Your task to perform on an android device: open a bookmark in the chrome app Image 0: 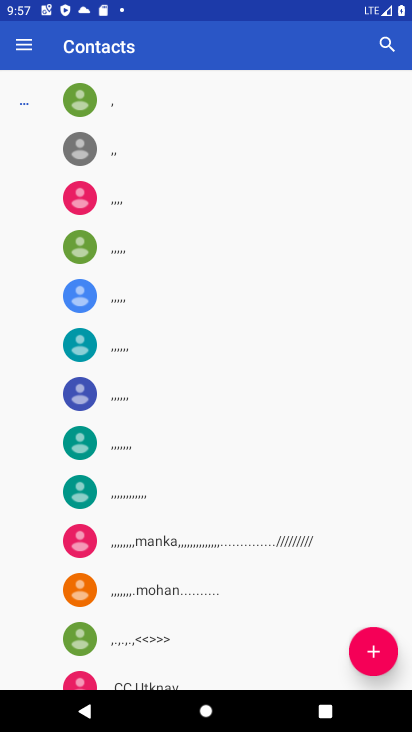
Step 0: press home button
Your task to perform on an android device: open a bookmark in the chrome app Image 1: 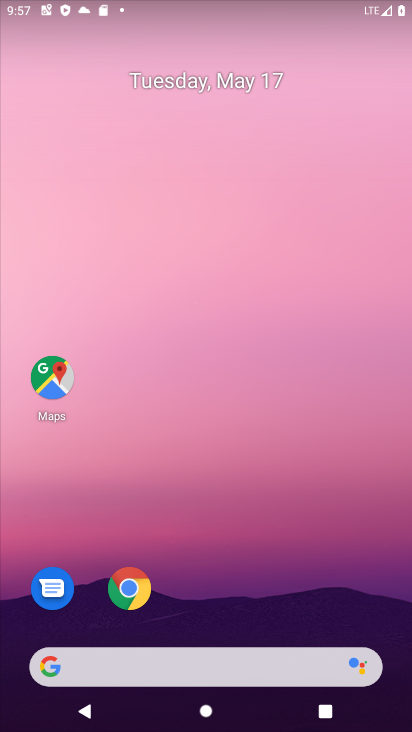
Step 1: drag from (222, 638) to (257, 19)
Your task to perform on an android device: open a bookmark in the chrome app Image 2: 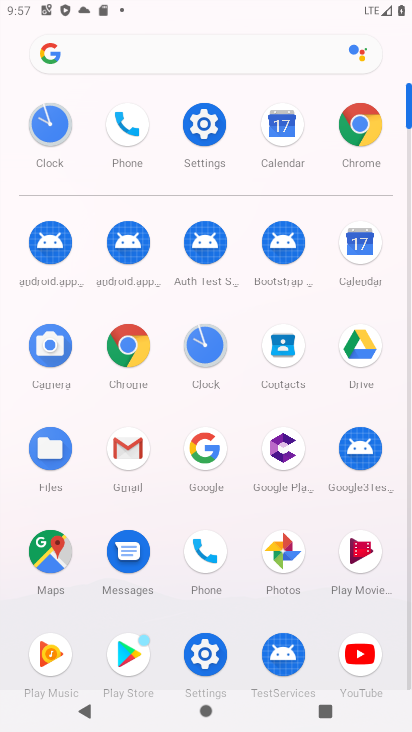
Step 2: click (362, 120)
Your task to perform on an android device: open a bookmark in the chrome app Image 3: 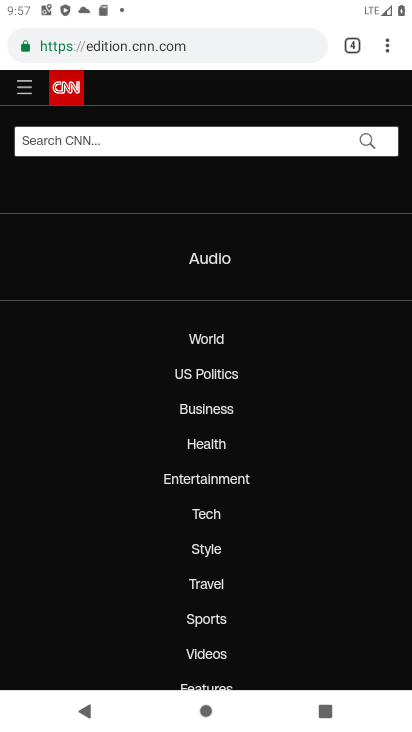
Step 3: click (384, 47)
Your task to perform on an android device: open a bookmark in the chrome app Image 4: 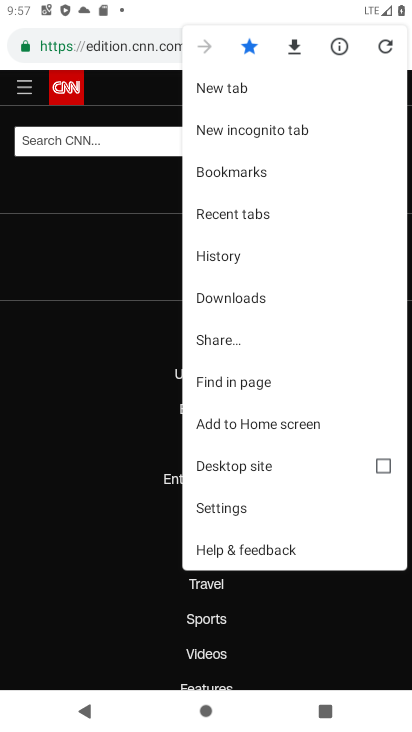
Step 4: click (212, 150)
Your task to perform on an android device: open a bookmark in the chrome app Image 5: 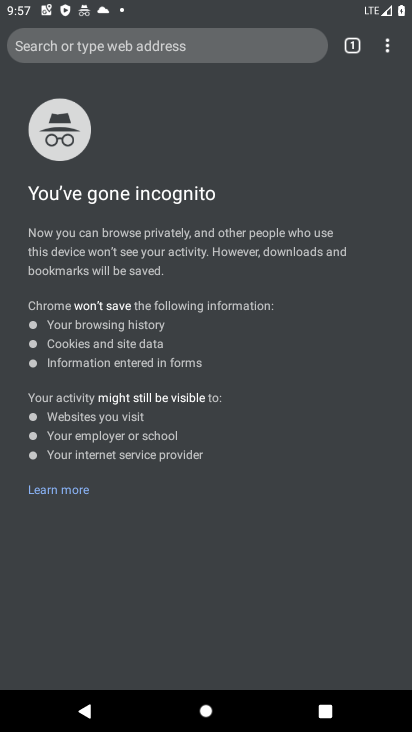
Step 5: click (379, 52)
Your task to perform on an android device: open a bookmark in the chrome app Image 6: 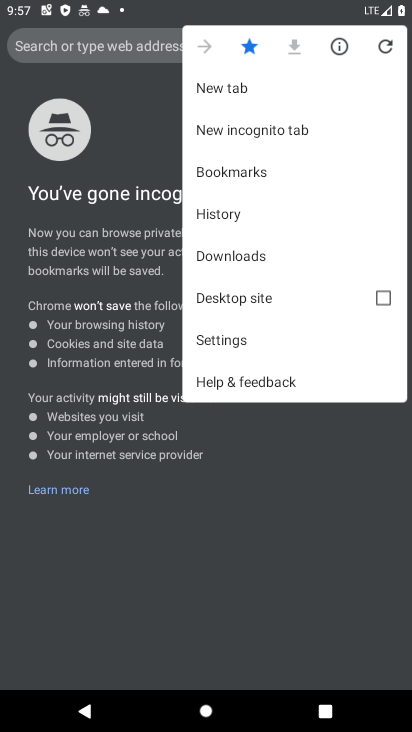
Step 6: click (240, 170)
Your task to perform on an android device: open a bookmark in the chrome app Image 7: 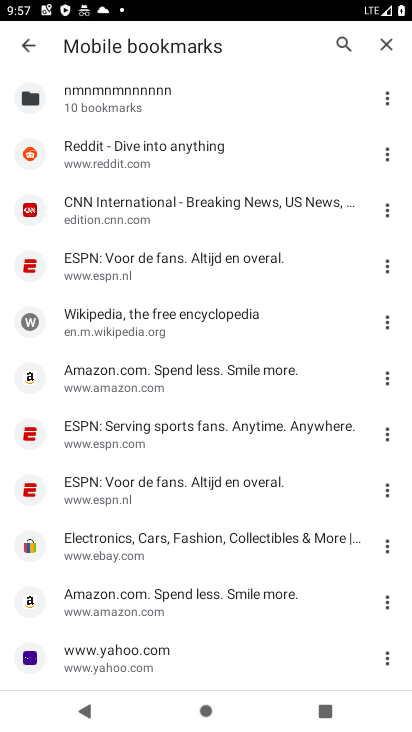
Step 7: task complete